Your task to perform on an android device: Open the calendar app, open the side menu, and click the "Day" option Image 0: 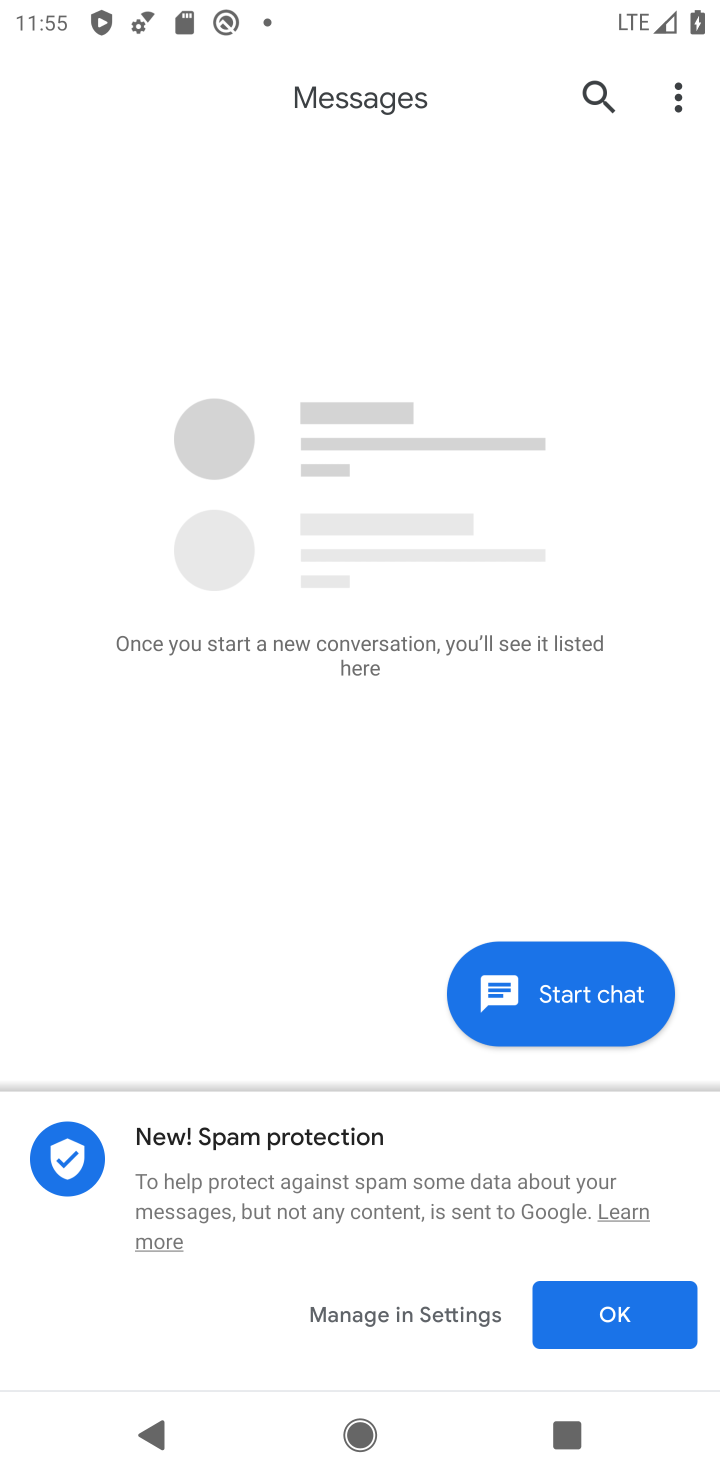
Step 0: press home button
Your task to perform on an android device: Open the calendar app, open the side menu, and click the "Day" option Image 1: 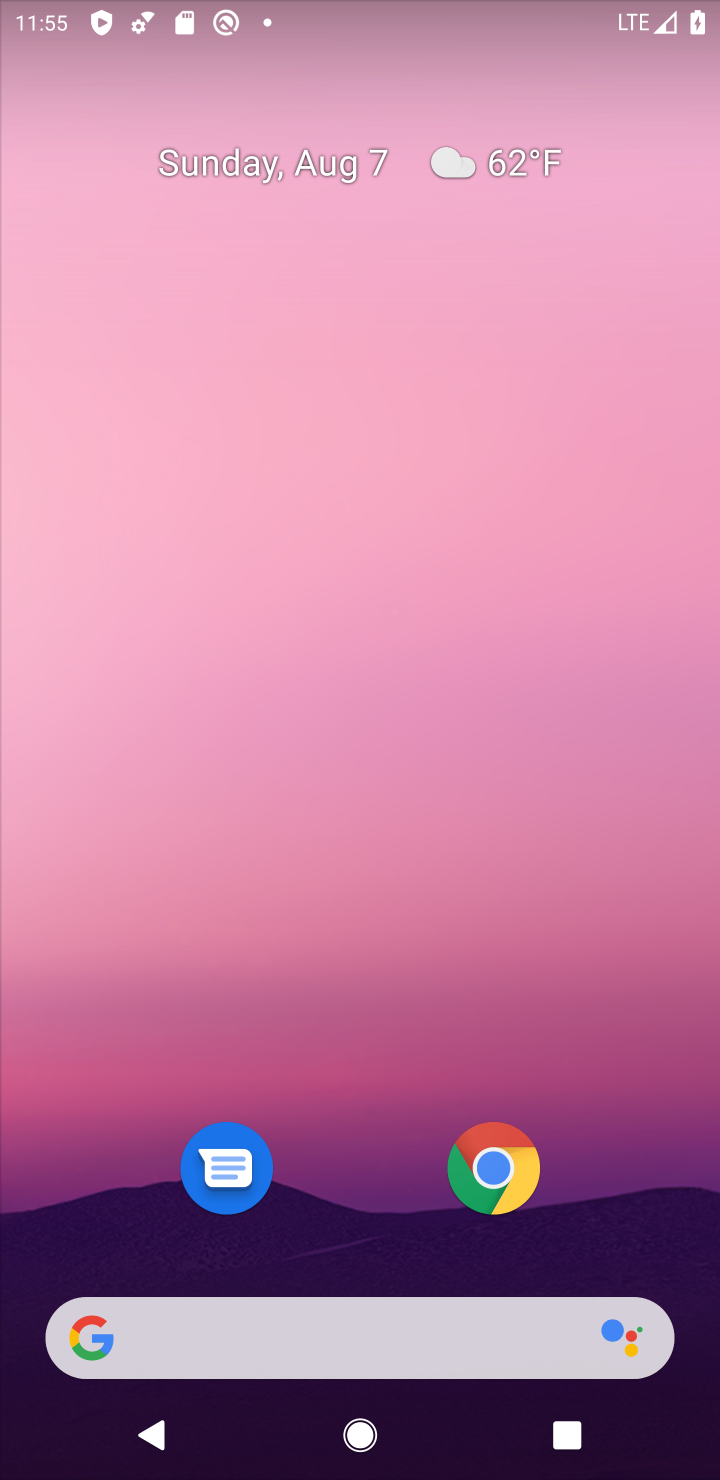
Step 1: drag from (380, 1218) to (398, 413)
Your task to perform on an android device: Open the calendar app, open the side menu, and click the "Day" option Image 2: 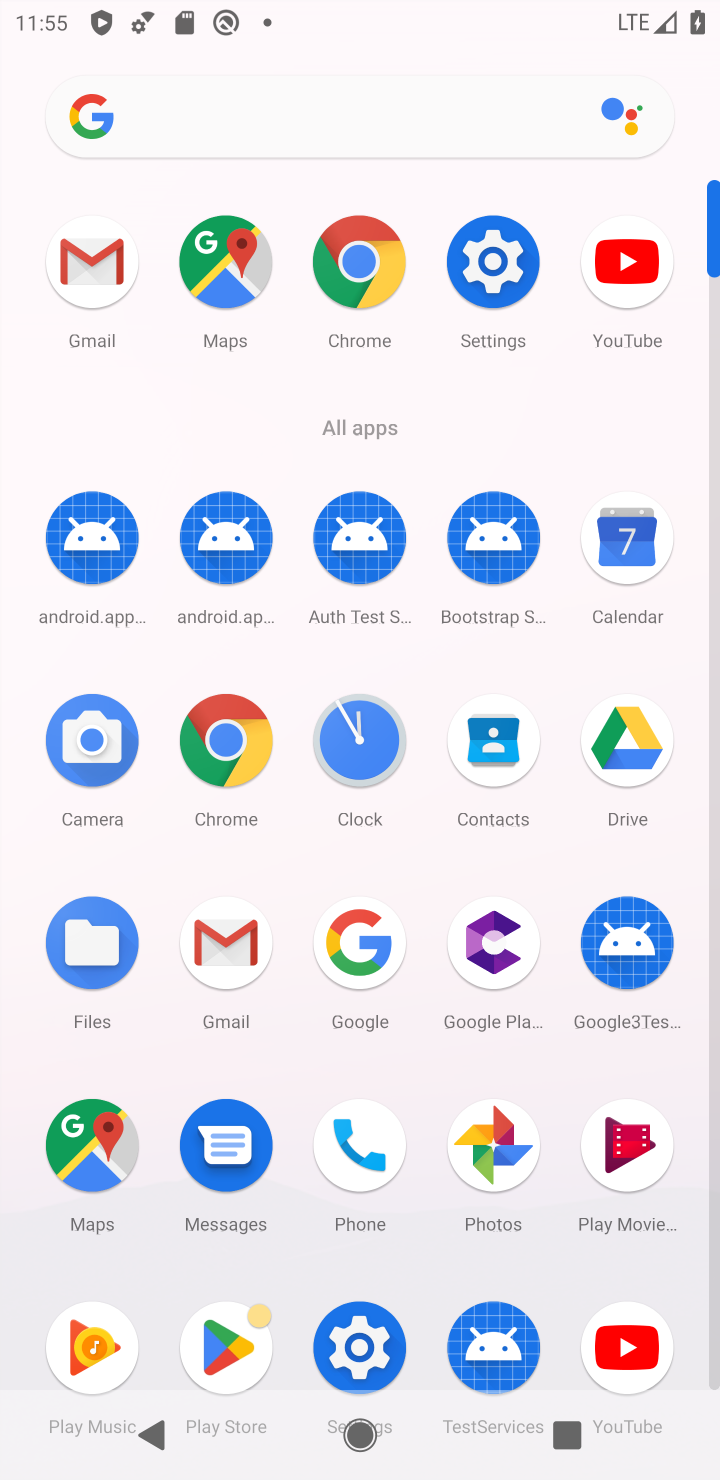
Step 2: click (633, 540)
Your task to perform on an android device: Open the calendar app, open the side menu, and click the "Day" option Image 3: 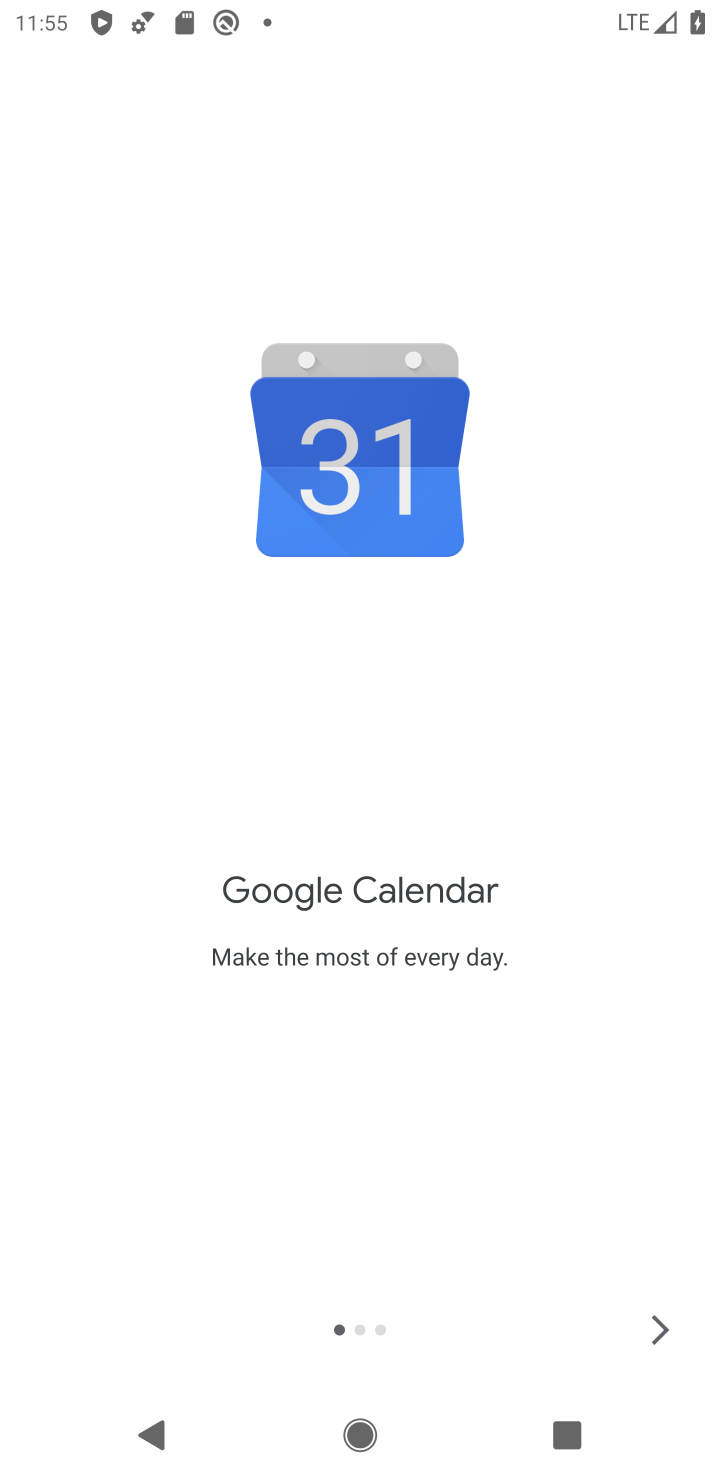
Step 3: click (661, 1334)
Your task to perform on an android device: Open the calendar app, open the side menu, and click the "Day" option Image 4: 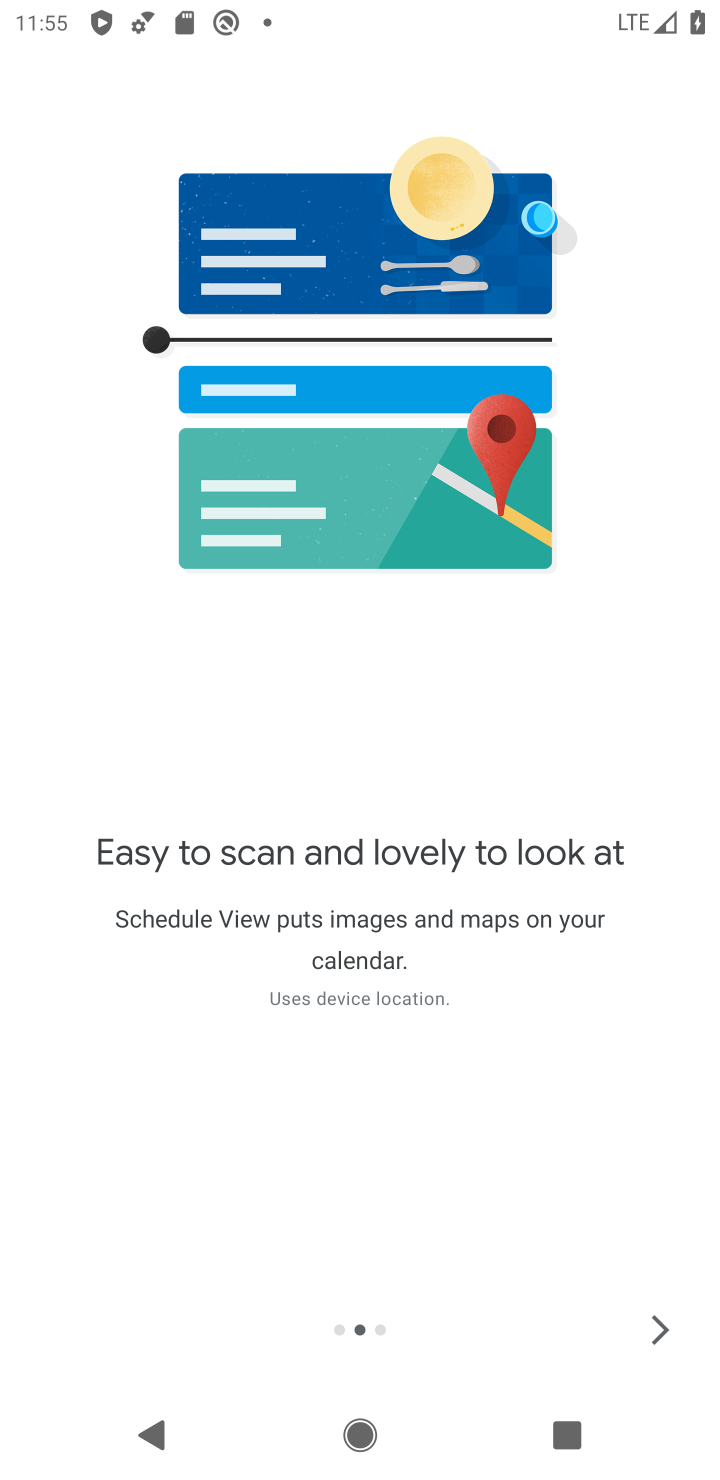
Step 4: click (661, 1334)
Your task to perform on an android device: Open the calendar app, open the side menu, and click the "Day" option Image 5: 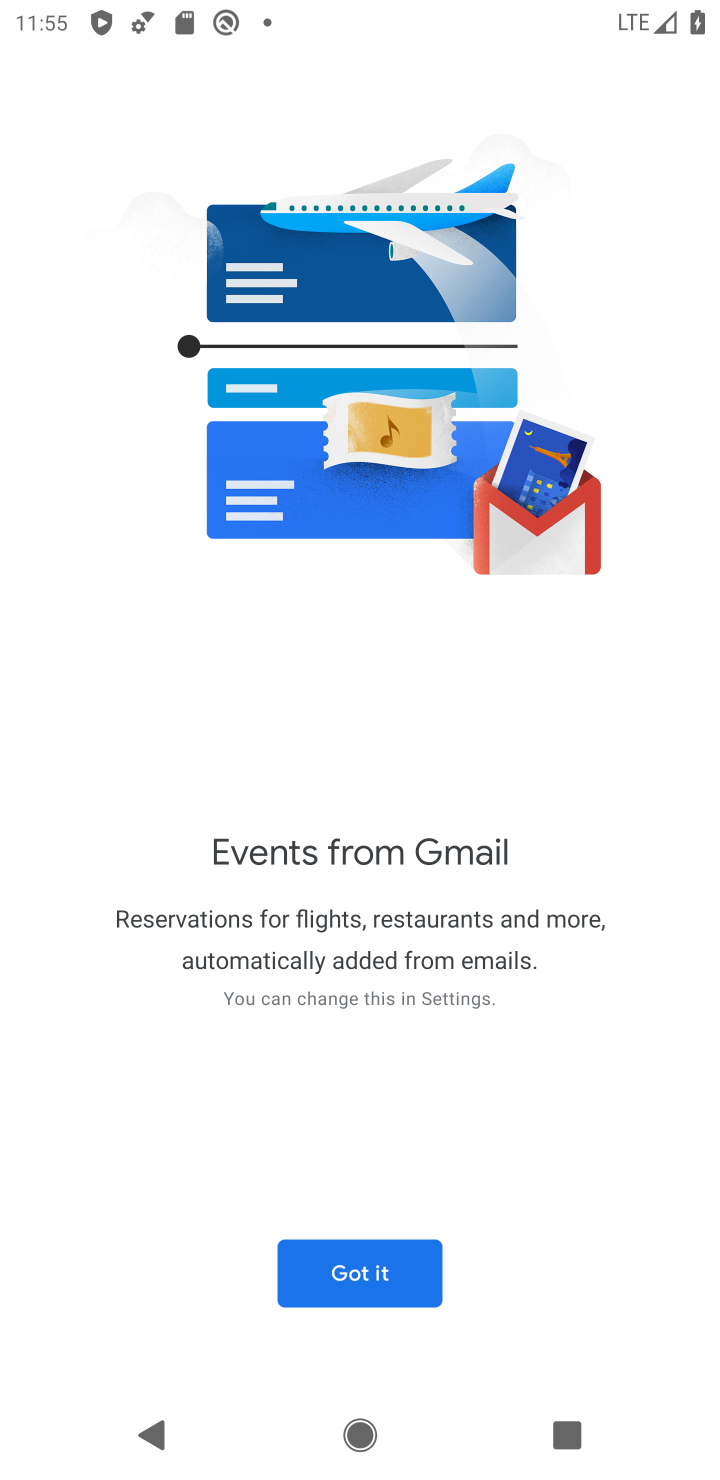
Step 5: click (354, 1277)
Your task to perform on an android device: Open the calendar app, open the side menu, and click the "Day" option Image 6: 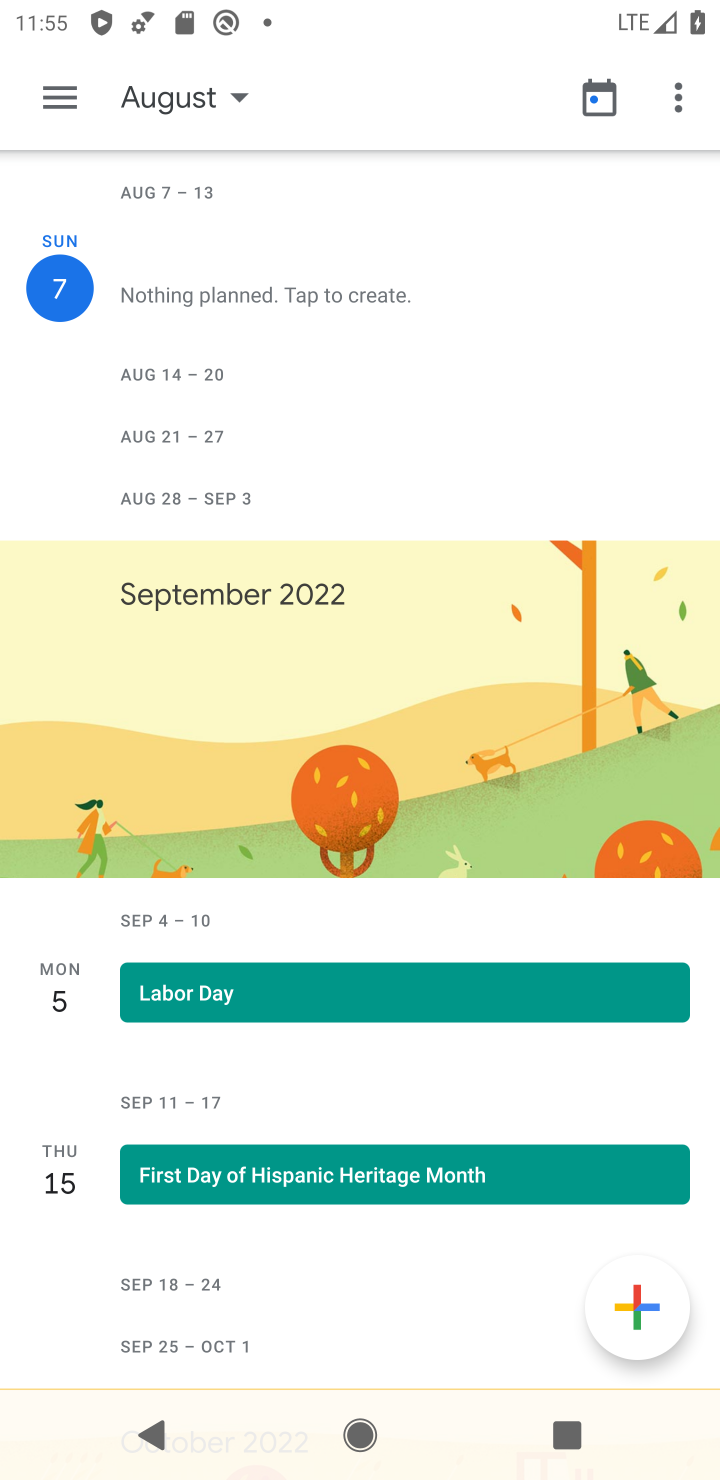
Step 6: click (55, 99)
Your task to perform on an android device: Open the calendar app, open the side menu, and click the "Day" option Image 7: 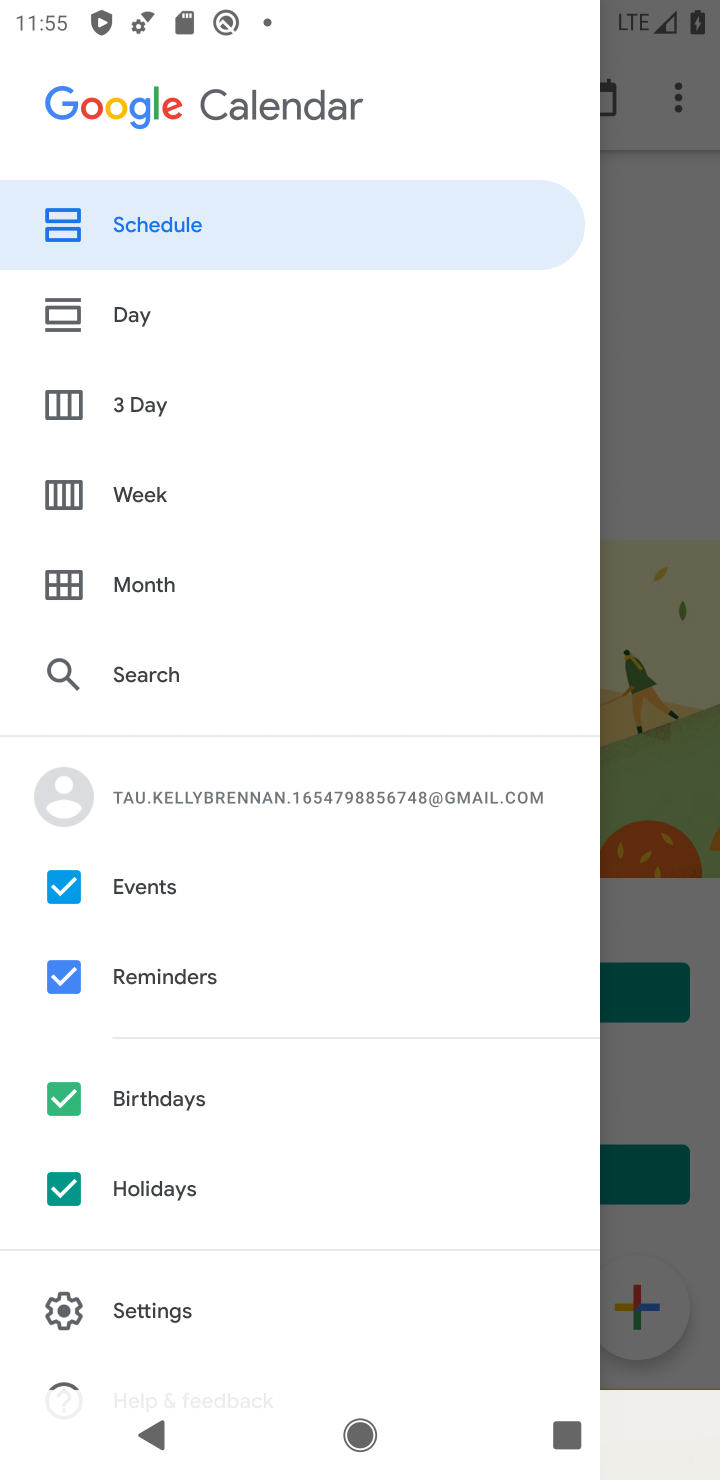
Step 7: click (135, 316)
Your task to perform on an android device: Open the calendar app, open the side menu, and click the "Day" option Image 8: 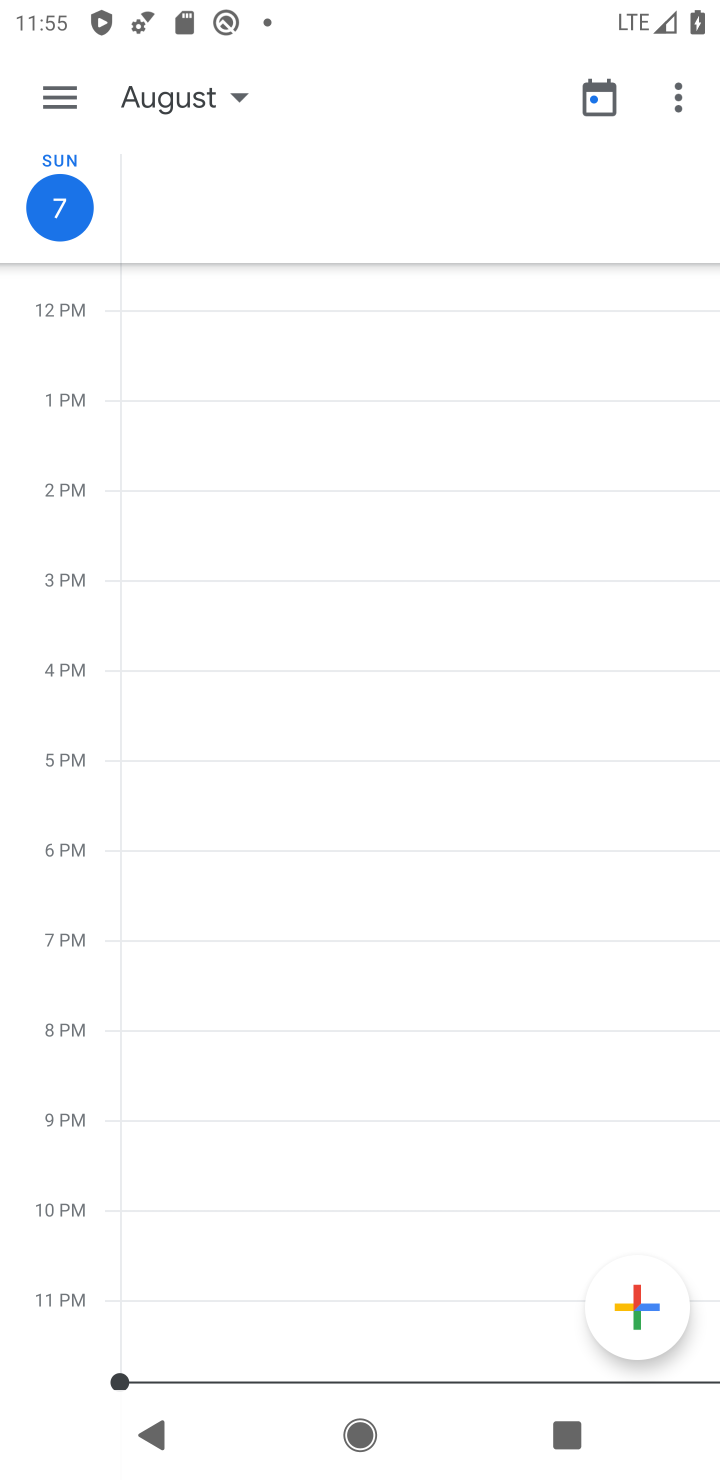
Step 8: task complete